Your task to perform on an android device: Open Google Chrome and open the bookmarks view Image 0: 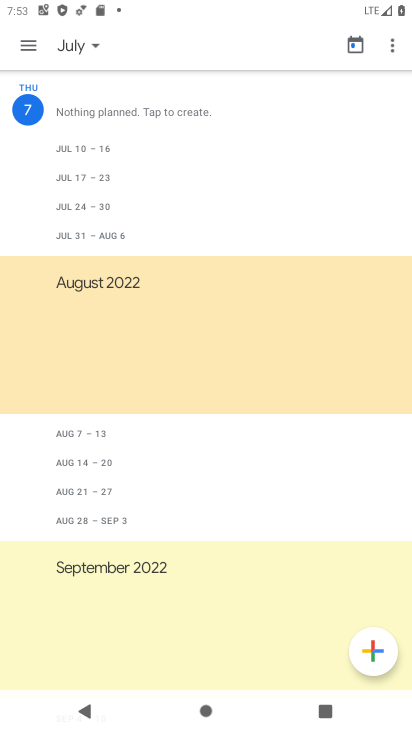
Step 0: drag from (335, 578) to (257, 201)
Your task to perform on an android device: Open Google Chrome and open the bookmarks view Image 1: 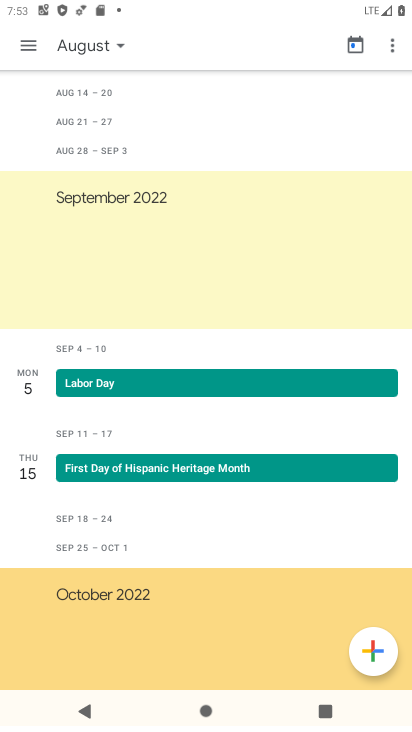
Step 1: press home button
Your task to perform on an android device: Open Google Chrome and open the bookmarks view Image 2: 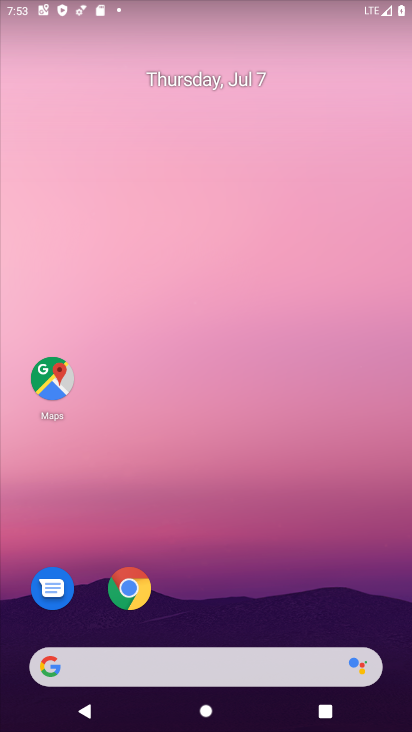
Step 2: drag from (312, 597) to (277, 150)
Your task to perform on an android device: Open Google Chrome and open the bookmarks view Image 3: 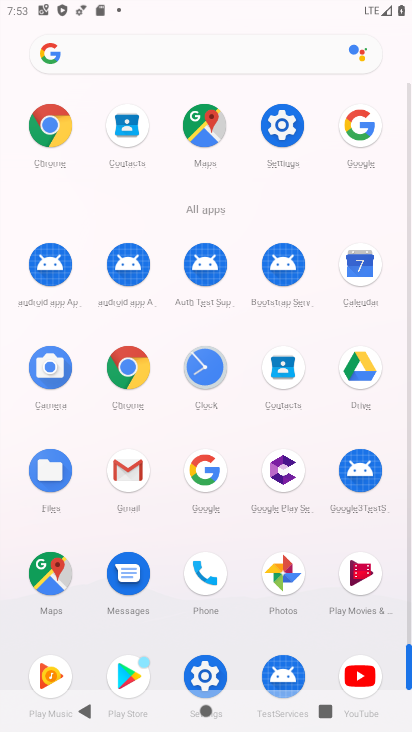
Step 3: click (44, 126)
Your task to perform on an android device: Open Google Chrome and open the bookmarks view Image 4: 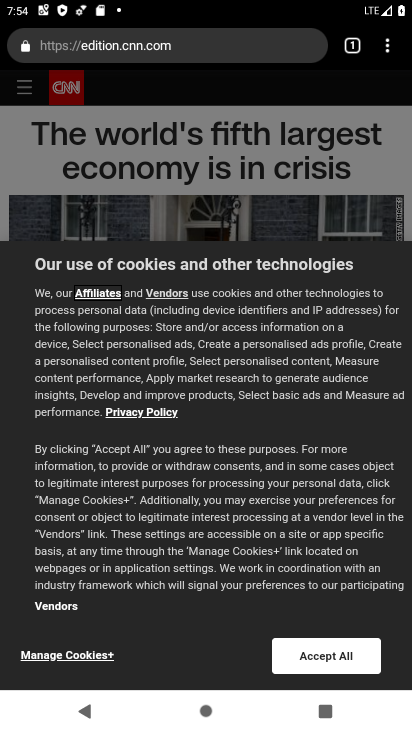
Step 4: click (386, 42)
Your task to perform on an android device: Open Google Chrome and open the bookmarks view Image 5: 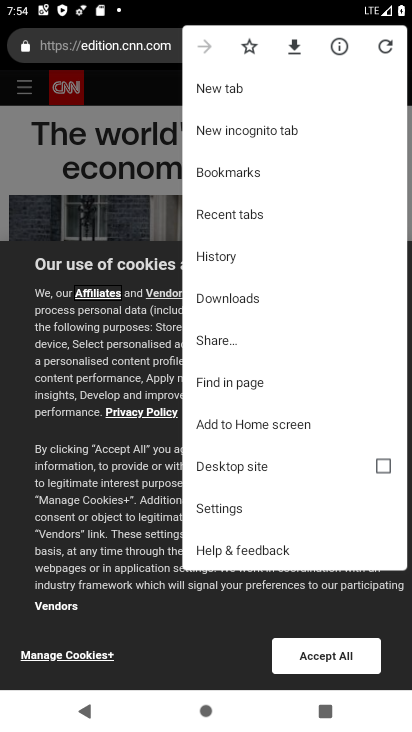
Step 5: click (218, 176)
Your task to perform on an android device: Open Google Chrome and open the bookmarks view Image 6: 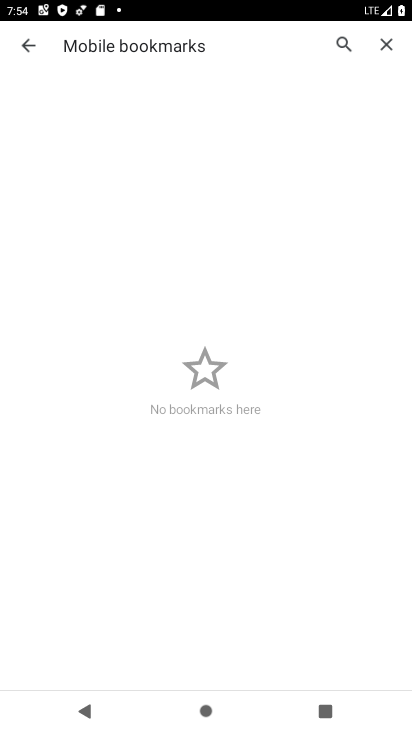
Step 6: task complete